Your task to perform on an android device: set default search engine in the chrome app Image 0: 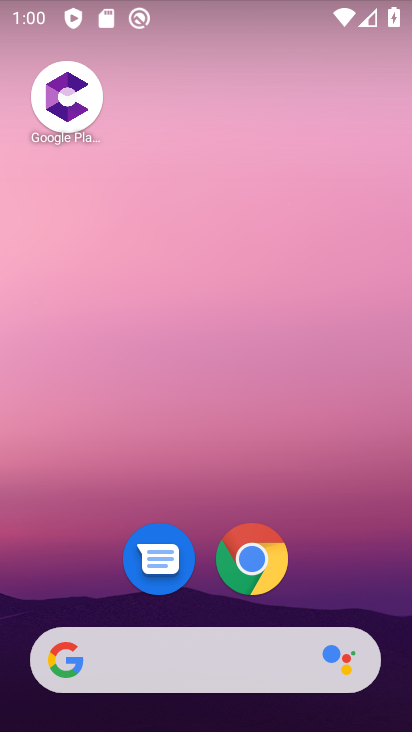
Step 0: click (251, 577)
Your task to perform on an android device: set default search engine in the chrome app Image 1: 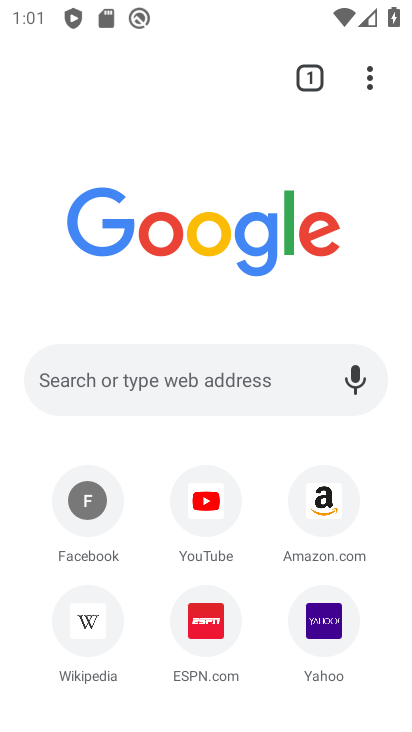
Step 1: click (363, 73)
Your task to perform on an android device: set default search engine in the chrome app Image 2: 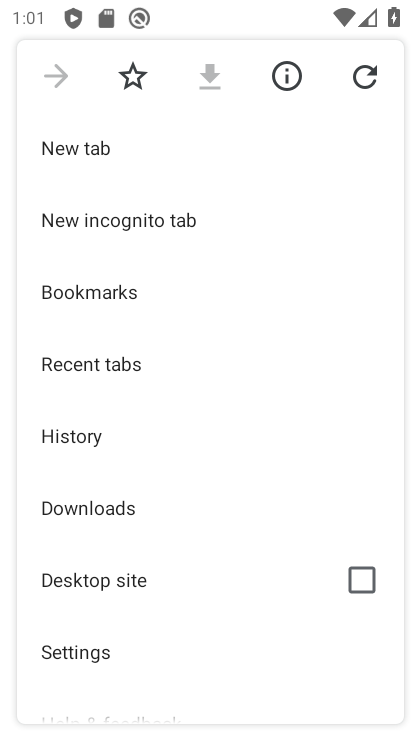
Step 2: click (77, 658)
Your task to perform on an android device: set default search engine in the chrome app Image 3: 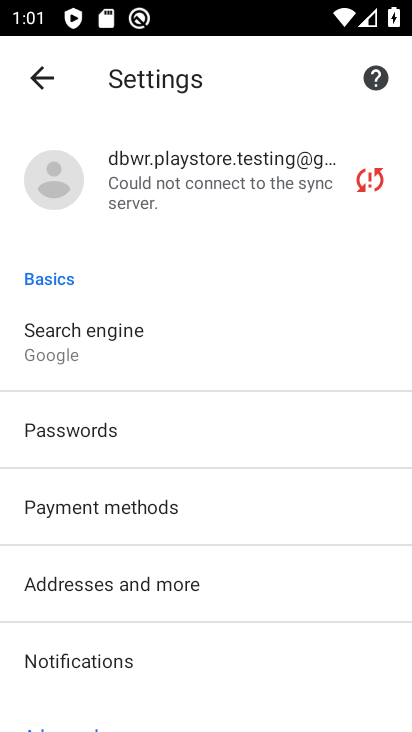
Step 3: click (93, 349)
Your task to perform on an android device: set default search engine in the chrome app Image 4: 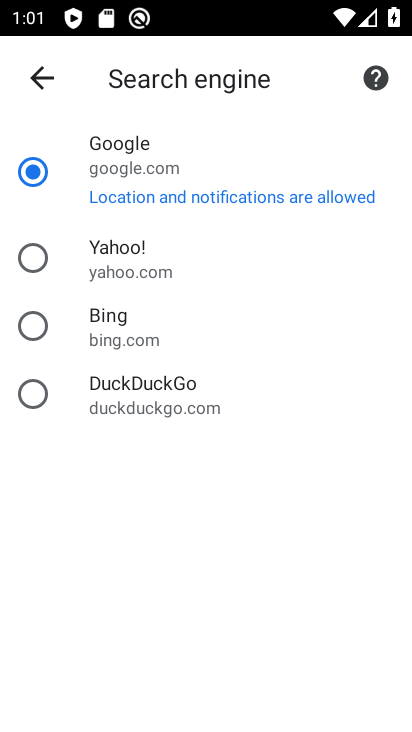
Step 4: click (117, 281)
Your task to perform on an android device: set default search engine in the chrome app Image 5: 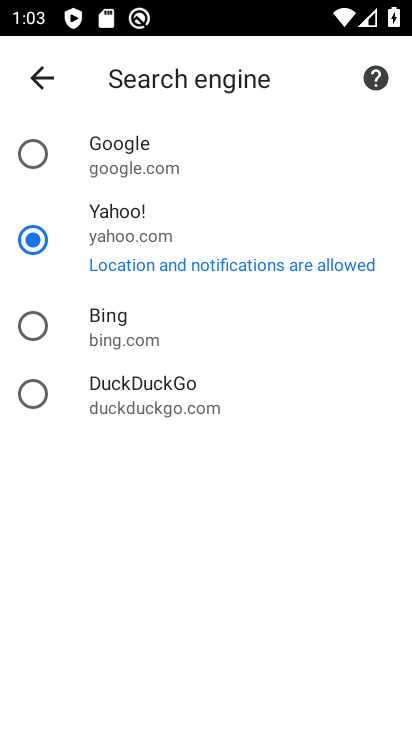
Step 5: task complete